Your task to perform on an android device: Open calendar and show me the first week of next month Image 0: 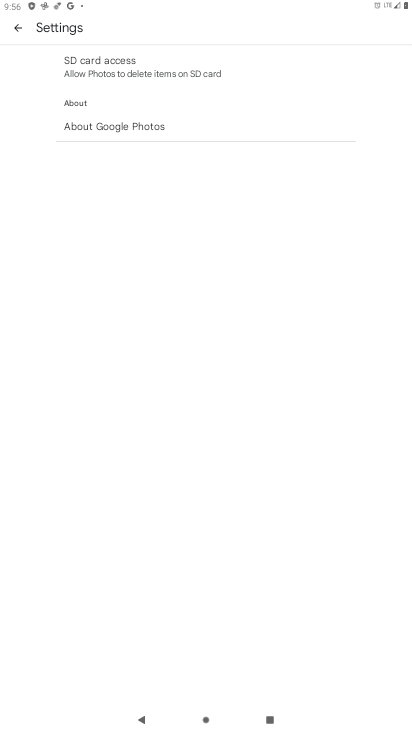
Step 0: press home button
Your task to perform on an android device: Open calendar and show me the first week of next month Image 1: 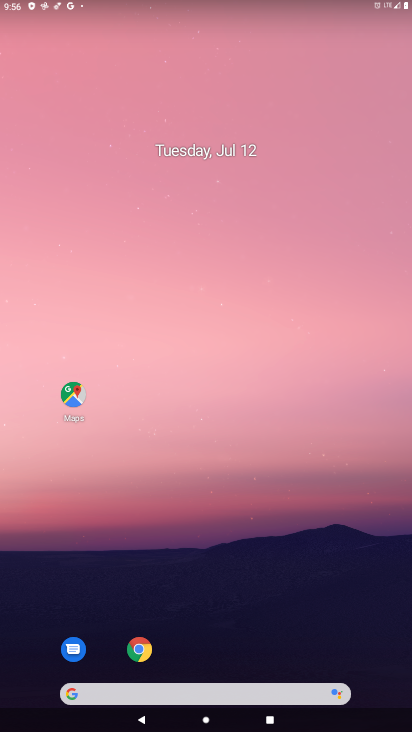
Step 1: drag from (285, 642) to (255, 162)
Your task to perform on an android device: Open calendar and show me the first week of next month Image 2: 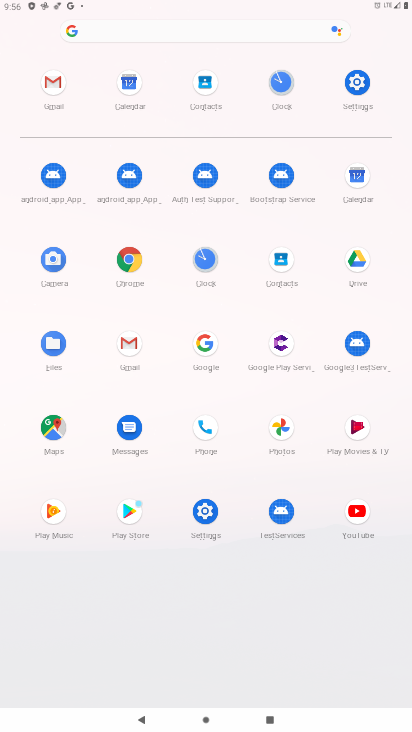
Step 2: click (140, 85)
Your task to perform on an android device: Open calendar and show me the first week of next month Image 3: 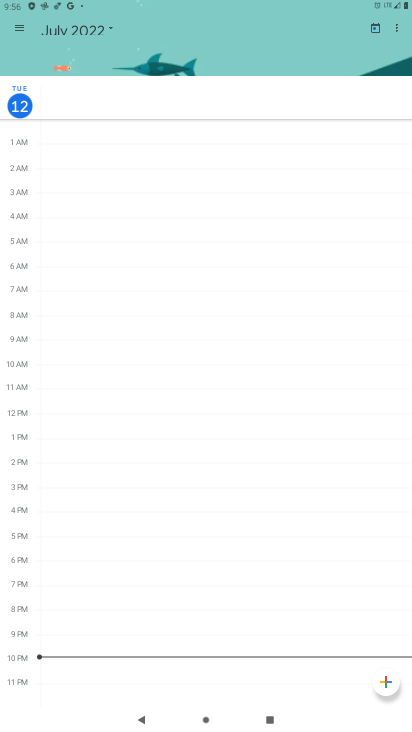
Step 3: task complete